Your task to perform on an android device: open a new tab in the chrome app Image 0: 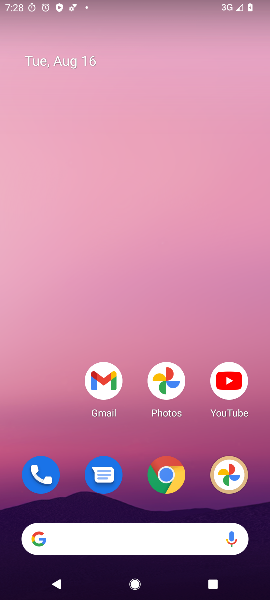
Step 0: drag from (231, 438) to (75, 34)
Your task to perform on an android device: open a new tab in the chrome app Image 1: 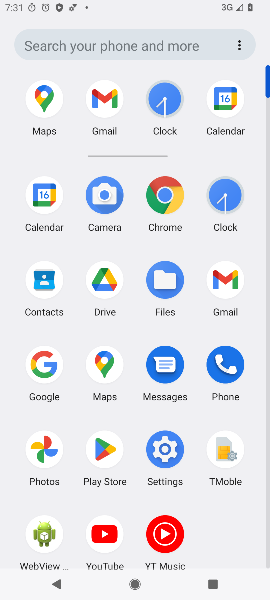
Step 1: click (168, 188)
Your task to perform on an android device: open a new tab in the chrome app Image 2: 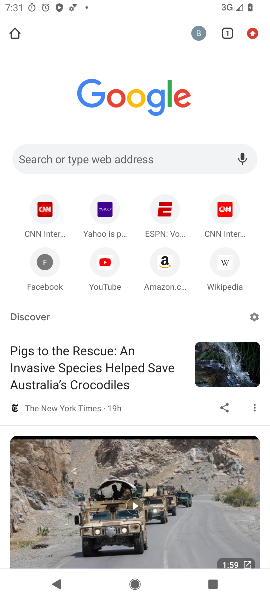
Step 2: click (253, 32)
Your task to perform on an android device: open a new tab in the chrome app Image 3: 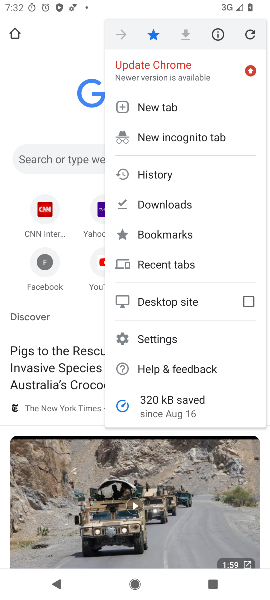
Step 3: click (132, 106)
Your task to perform on an android device: open a new tab in the chrome app Image 4: 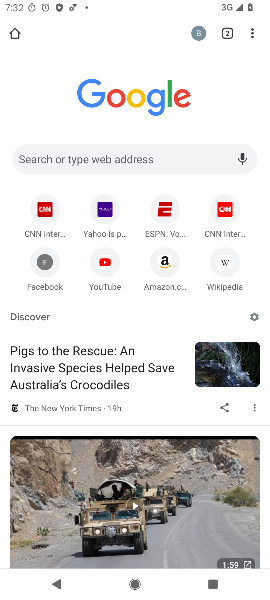
Step 4: task complete